Your task to perform on an android device: Open Google Maps Image 0: 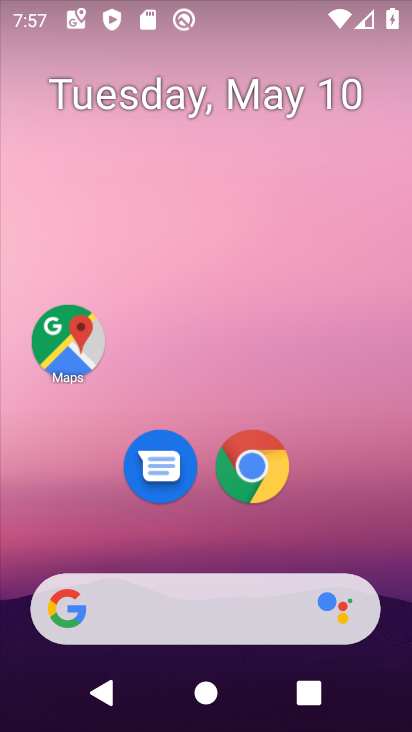
Step 0: drag from (307, 552) to (151, 47)
Your task to perform on an android device: Open Google Maps Image 1: 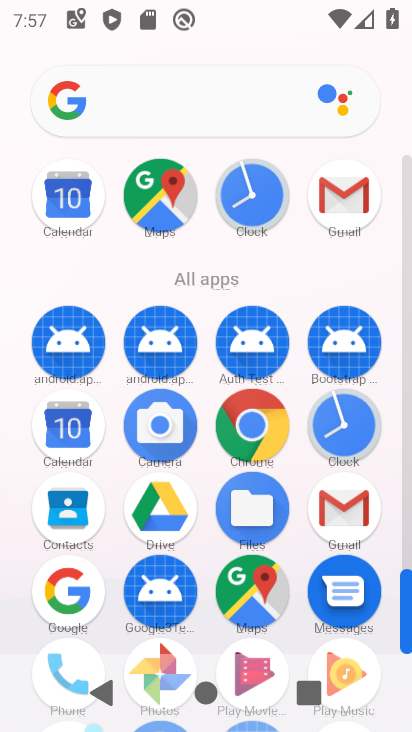
Step 1: click (263, 578)
Your task to perform on an android device: Open Google Maps Image 2: 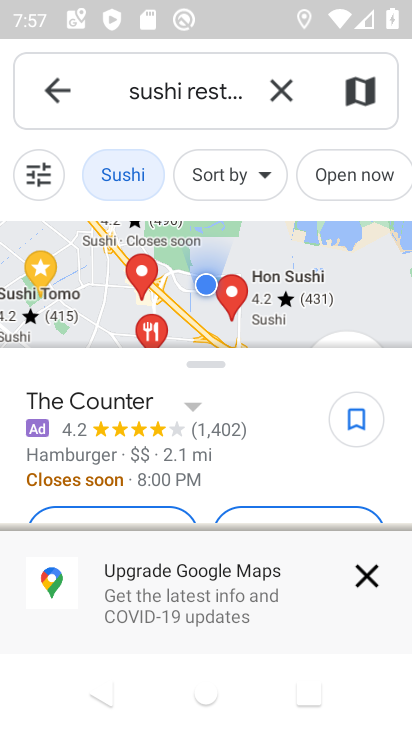
Step 2: click (58, 97)
Your task to perform on an android device: Open Google Maps Image 3: 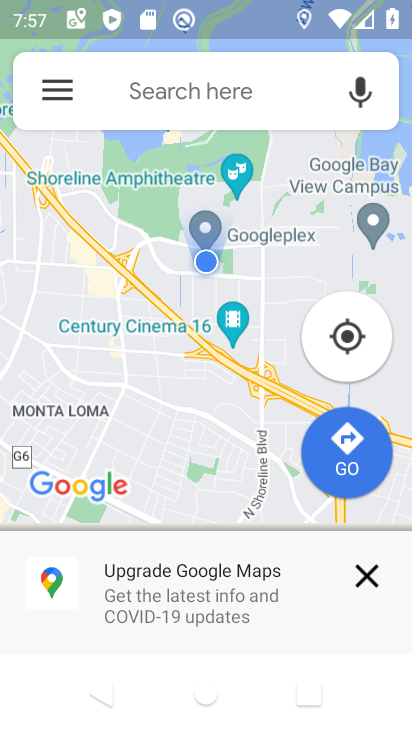
Step 3: task complete